Your task to perform on an android device: show emergency info Image 0: 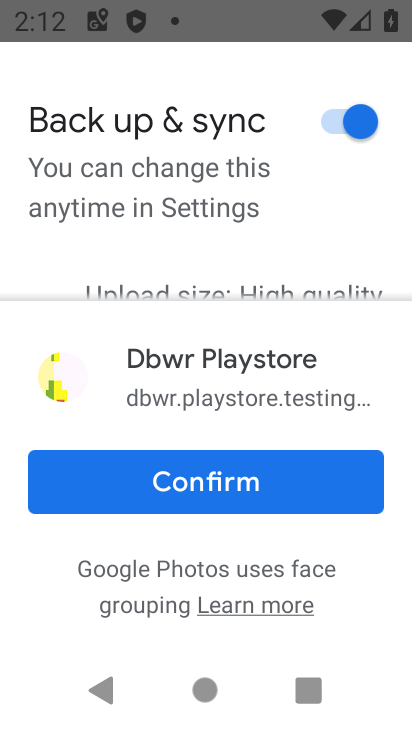
Step 0: press home button
Your task to perform on an android device: show emergency info Image 1: 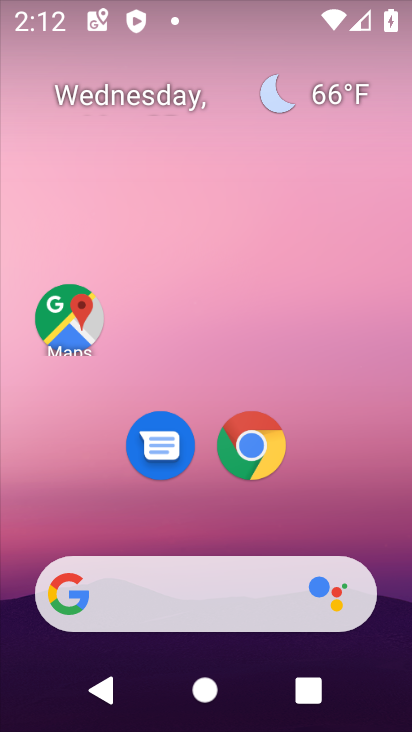
Step 1: drag from (153, 725) to (285, 150)
Your task to perform on an android device: show emergency info Image 2: 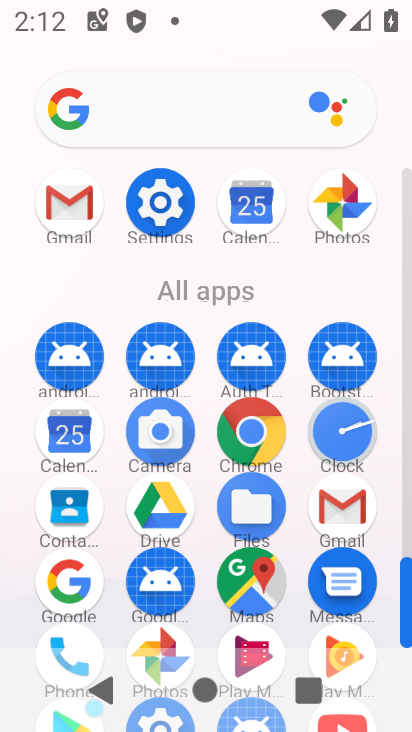
Step 2: click (147, 199)
Your task to perform on an android device: show emergency info Image 3: 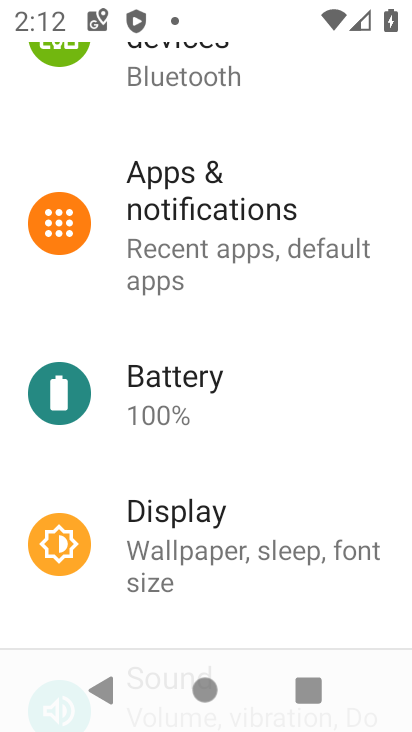
Step 3: drag from (47, 444) to (258, 106)
Your task to perform on an android device: show emergency info Image 4: 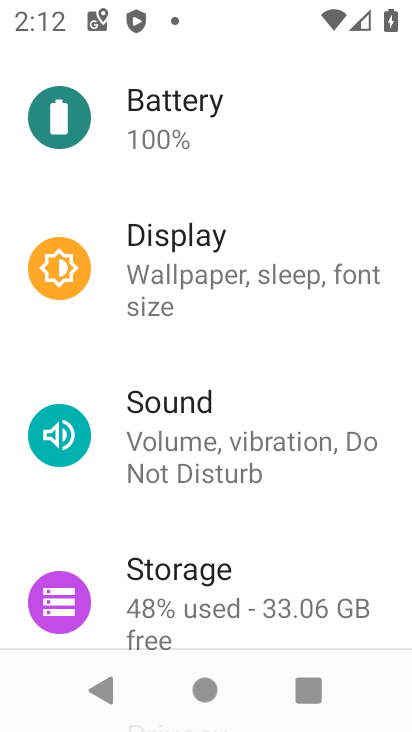
Step 4: drag from (25, 511) to (284, 178)
Your task to perform on an android device: show emergency info Image 5: 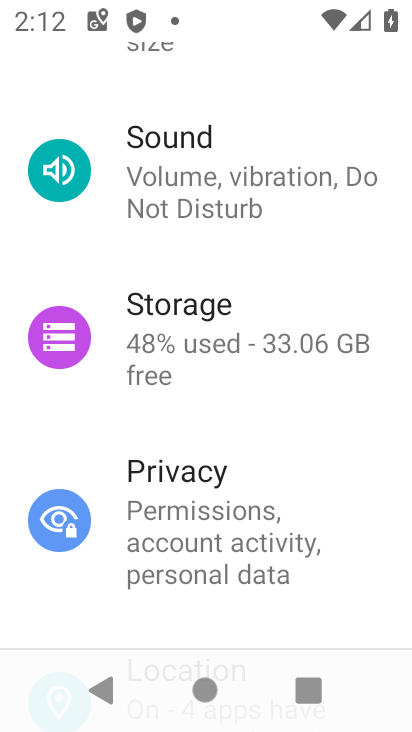
Step 5: drag from (43, 556) to (304, 175)
Your task to perform on an android device: show emergency info Image 6: 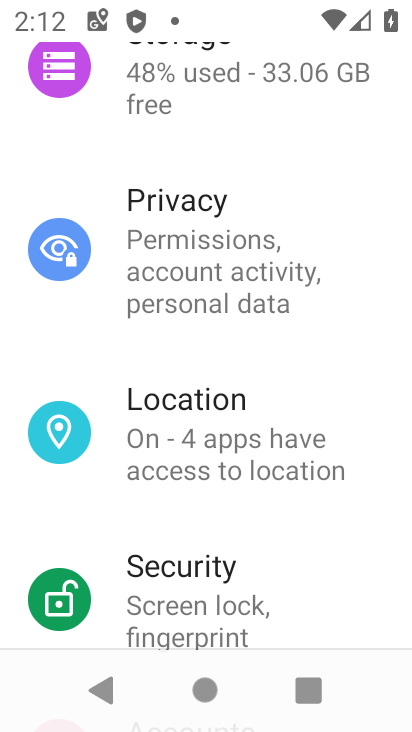
Step 6: drag from (45, 391) to (254, 102)
Your task to perform on an android device: show emergency info Image 7: 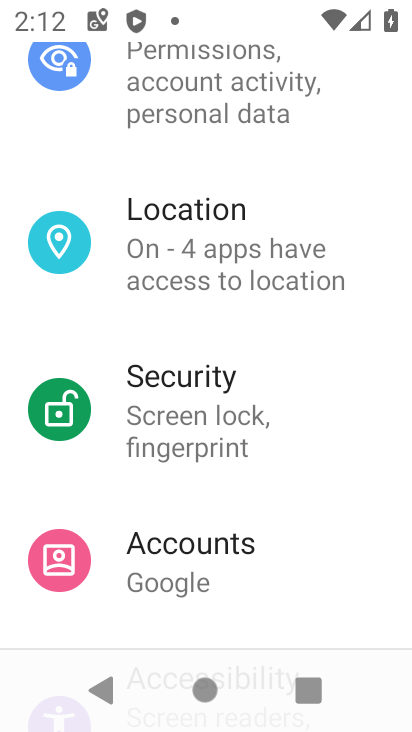
Step 7: drag from (35, 355) to (215, 84)
Your task to perform on an android device: show emergency info Image 8: 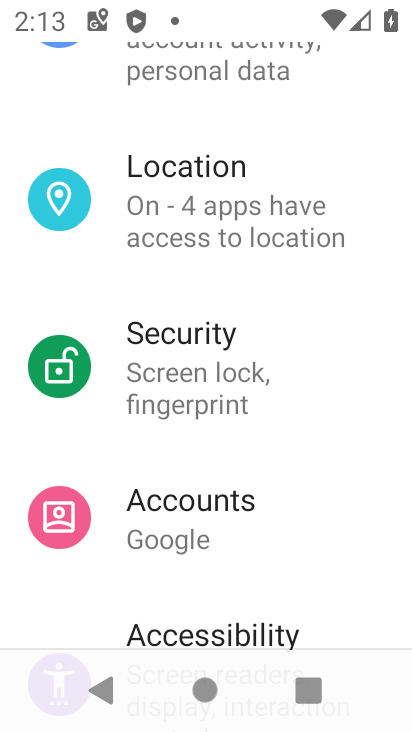
Step 8: drag from (88, 712) to (265, 235)
Your task to perform on an android device: show emergency info Image 9: 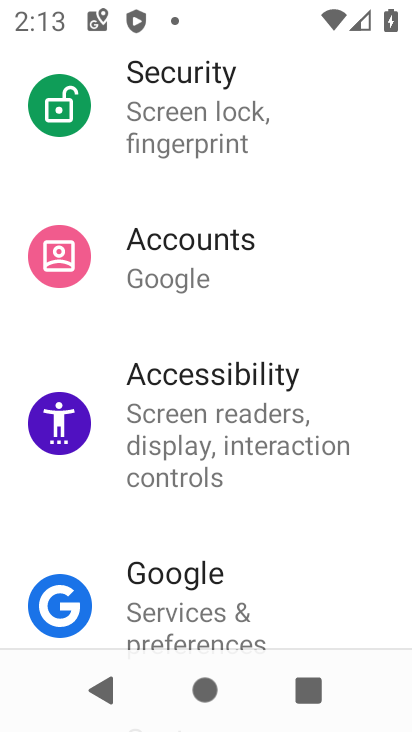
Step 9: drag from (25, 598) to (258, 147)
Your task to perform on an android device: show emergency info Image 10: 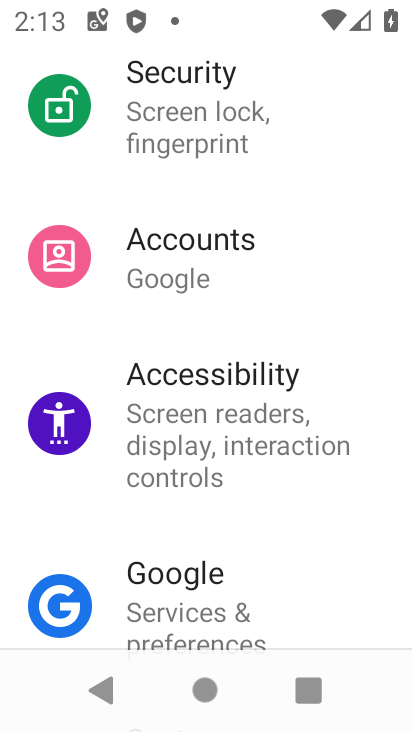
Step 10: drag from (52, 451) to (272, 133)
Your task to perform on an android device: show emergency info Image 11: 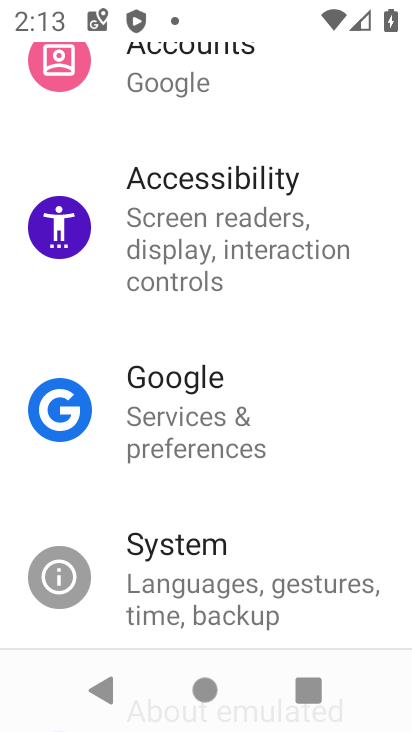
Step 11: drag from (32, 601) to (324, 97)
Your task to perform on an android device: show emergency info Image 12: 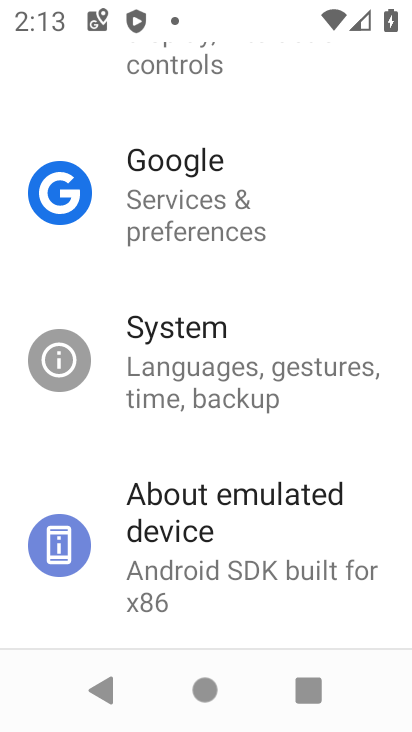
Step 12: click (150, 577)
Your task to perform on an android device: show emergency info Image 13: 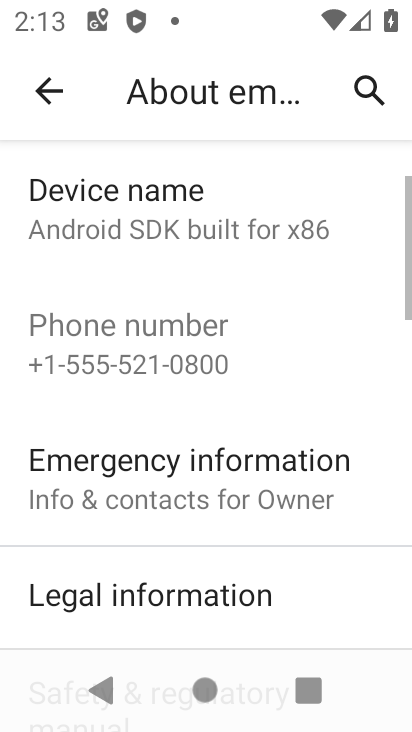
Step 13: click (118, 486)
Your task to perform on an android device: show emergency info Image 14: 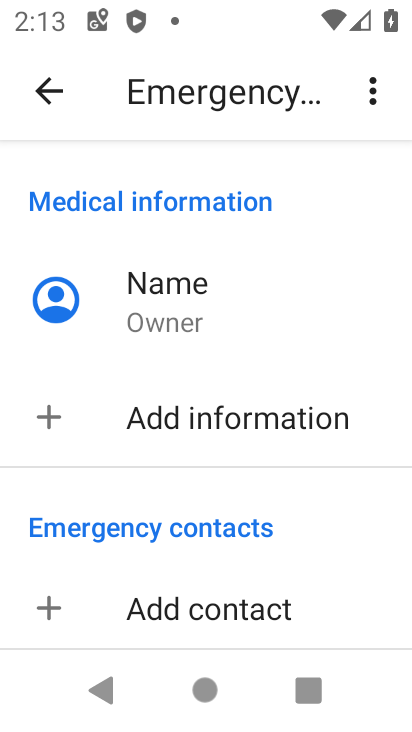
Step 14: task complete